Your task to perform on an android device: Search for sushi restaurants on Maps Image 0: 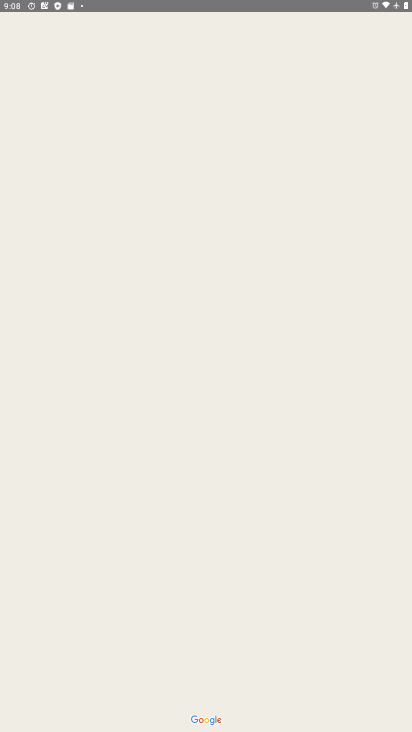
Step 0: press home button
Your task to perform on an android device: Search for sushi restaurants on Maps Image 1: 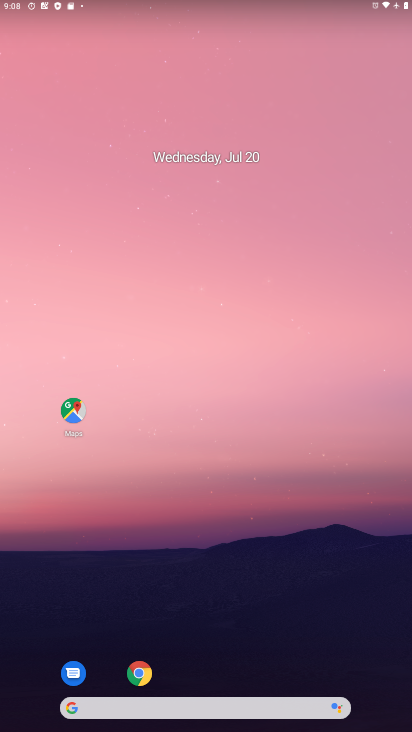
Step 1: click (70, 412)
Your task to perform on an android device: Search for sushi restaurants on Maps Image 2: 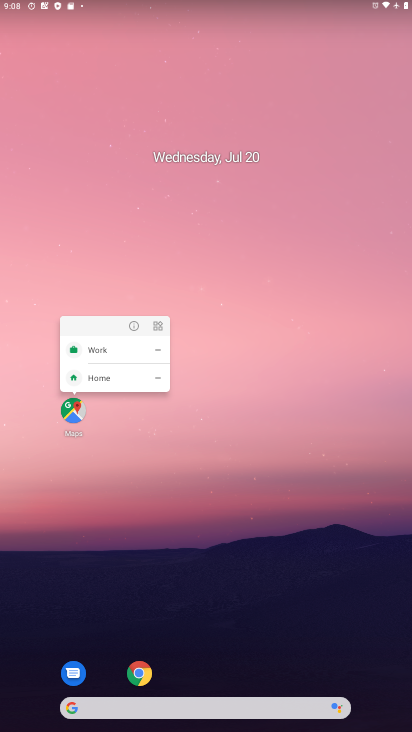
Step 2: click (70, 412)
Your task to perform on an android device: Search for sushi restaurants on Maps Image 3: 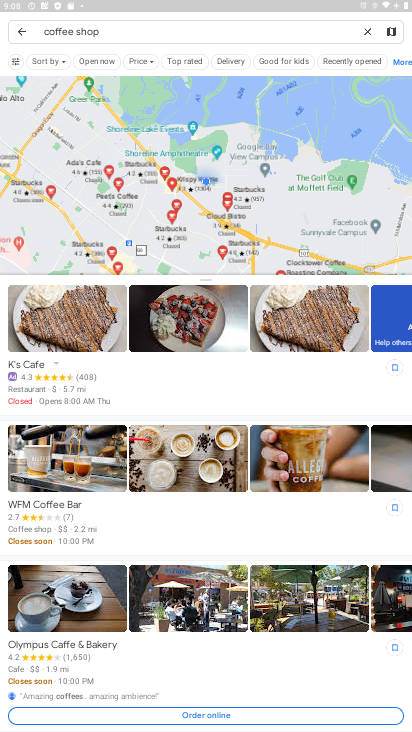
Step 3: click (366, 31)
Your task to perform on an android device: Search for sushi restaurants on Maps Image 4: 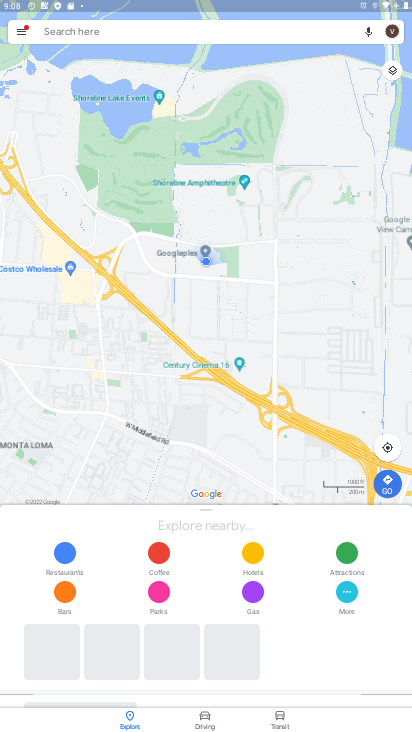
Step 4: click (198, 36)
Your task to perform on an android device: Search for sushi restaurants on Maps Image 5: 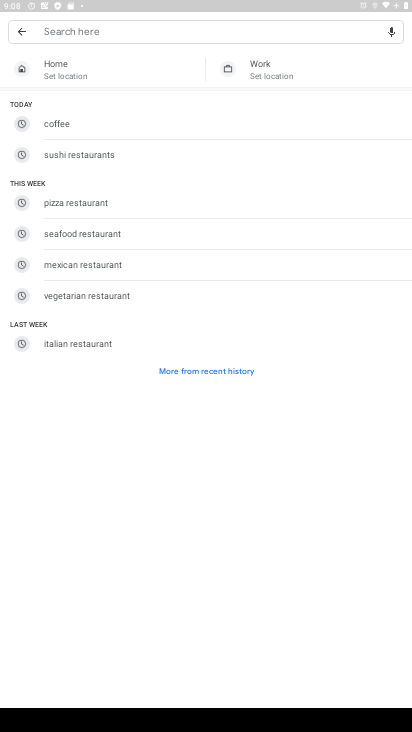
Step 5: click (102, 157)
Your task to perform on an android device: Search for sushi restaurants on Maps Image 6: 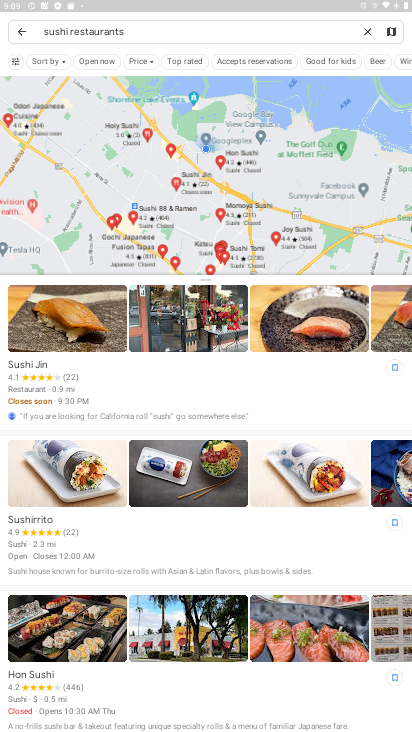
Step 6: task complete